Your task to perform on an android device: Open sound settings Image 0: 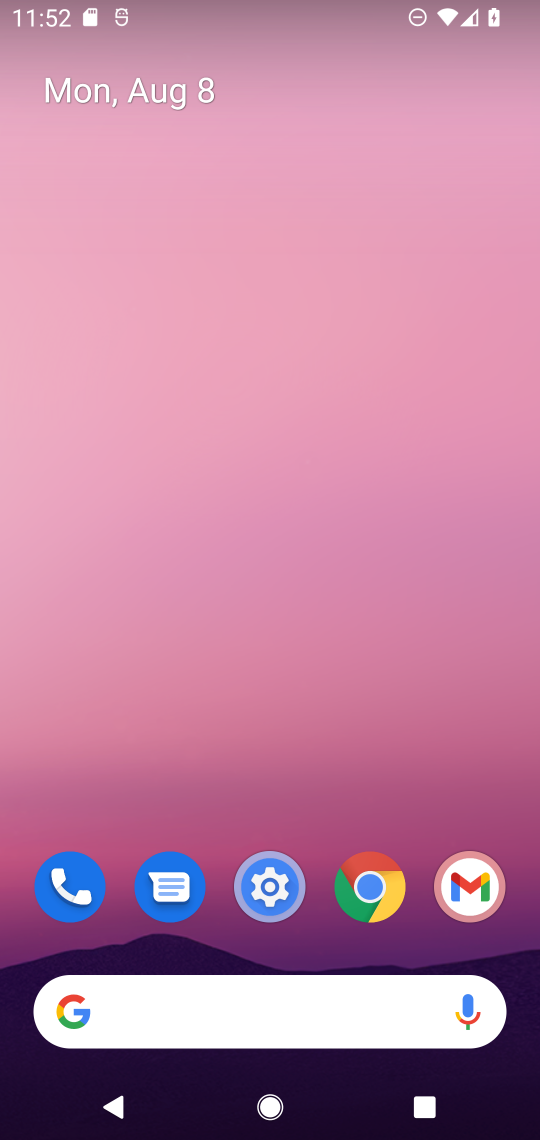
Step 0: click (276, 882)
Your task to perform on an android device: Open sound settings Image 1: 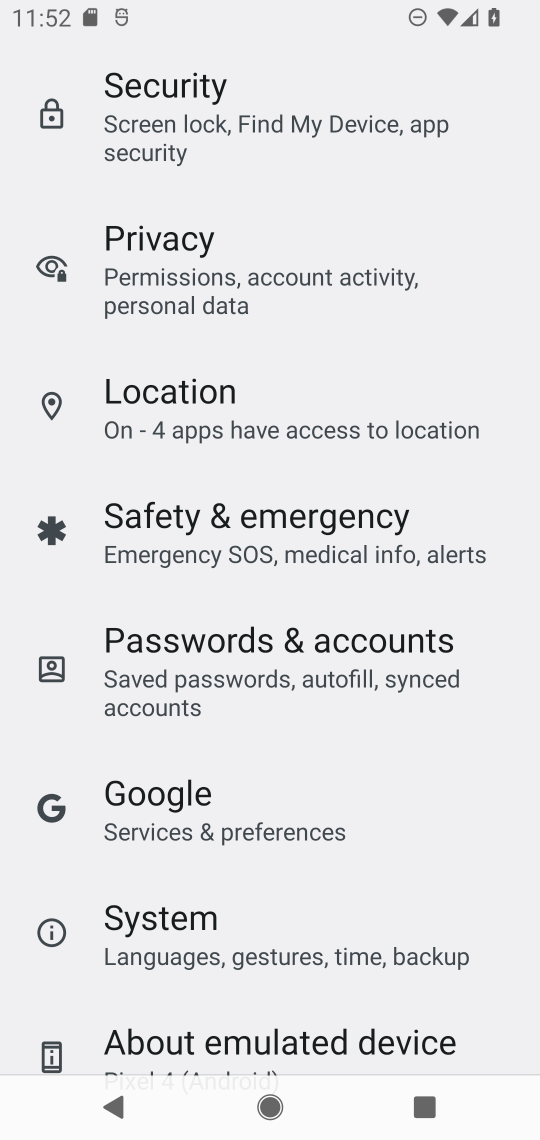
Step 1: drag from (311, 132) to (386, 749)
Your task to perform on an android device: Open sound settings Image 2: 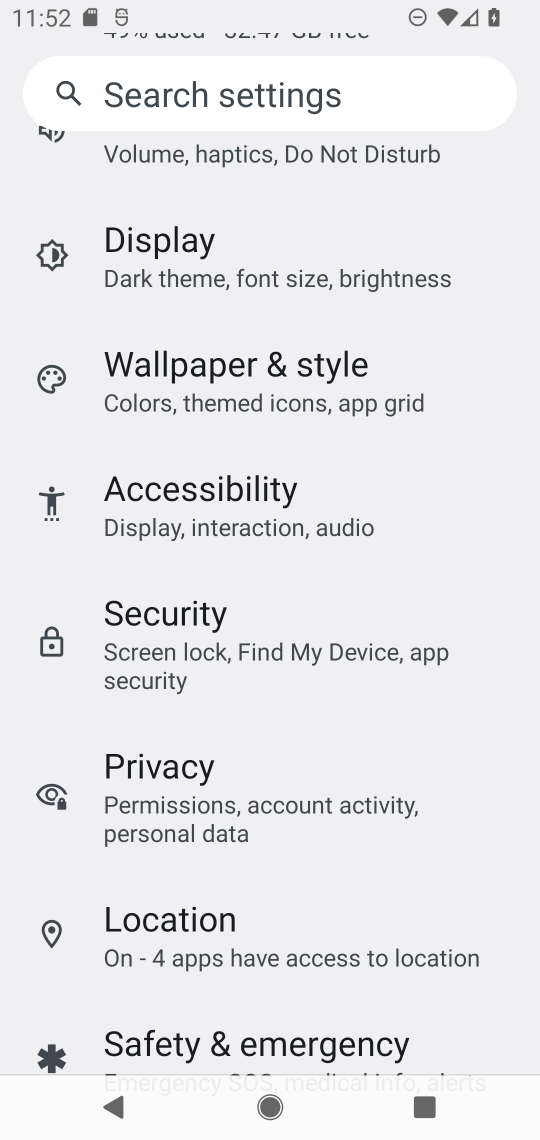
Step 2: drag from (325, 229) to (312, 1050)
Your task to perform on an android device: Open sound settings Image 3: 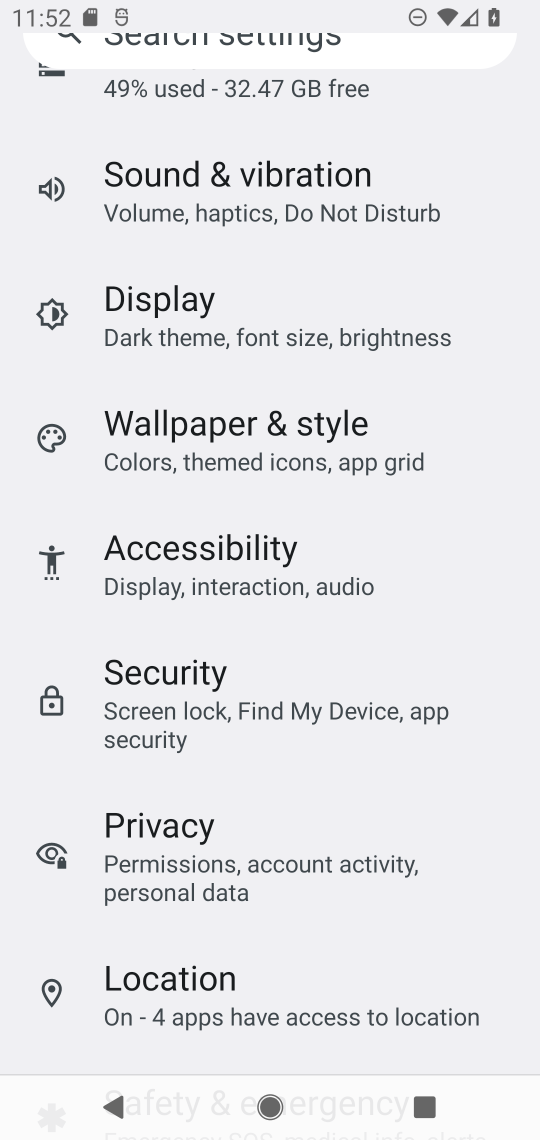
Step 3: click (171, 168)
Your task to perform on an android device: Open sound settings Image 4: 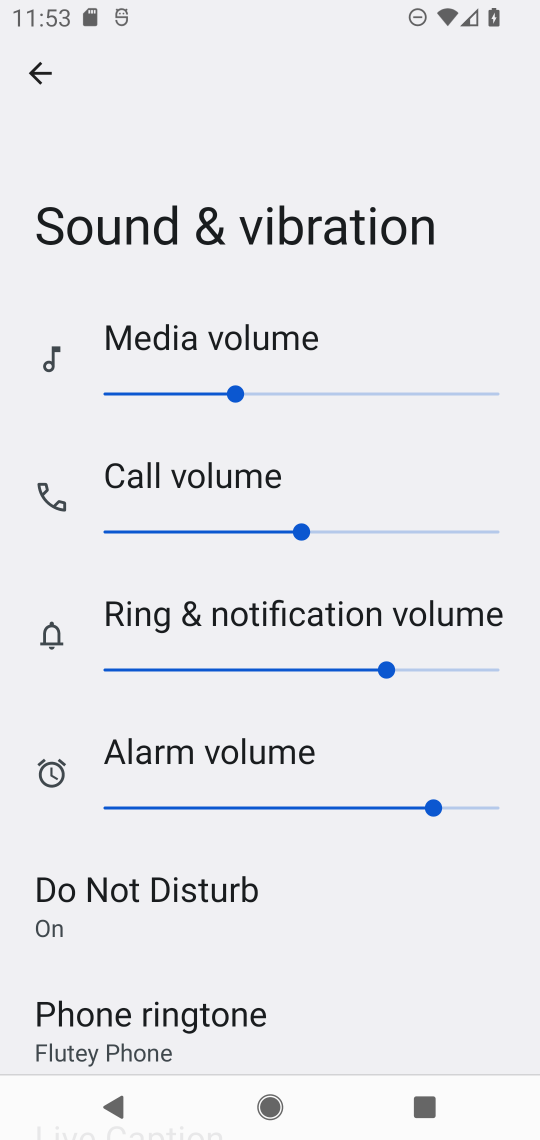
Step 4: task complete